Your task to perform on an android device: find photos in the google photos app Image 0: 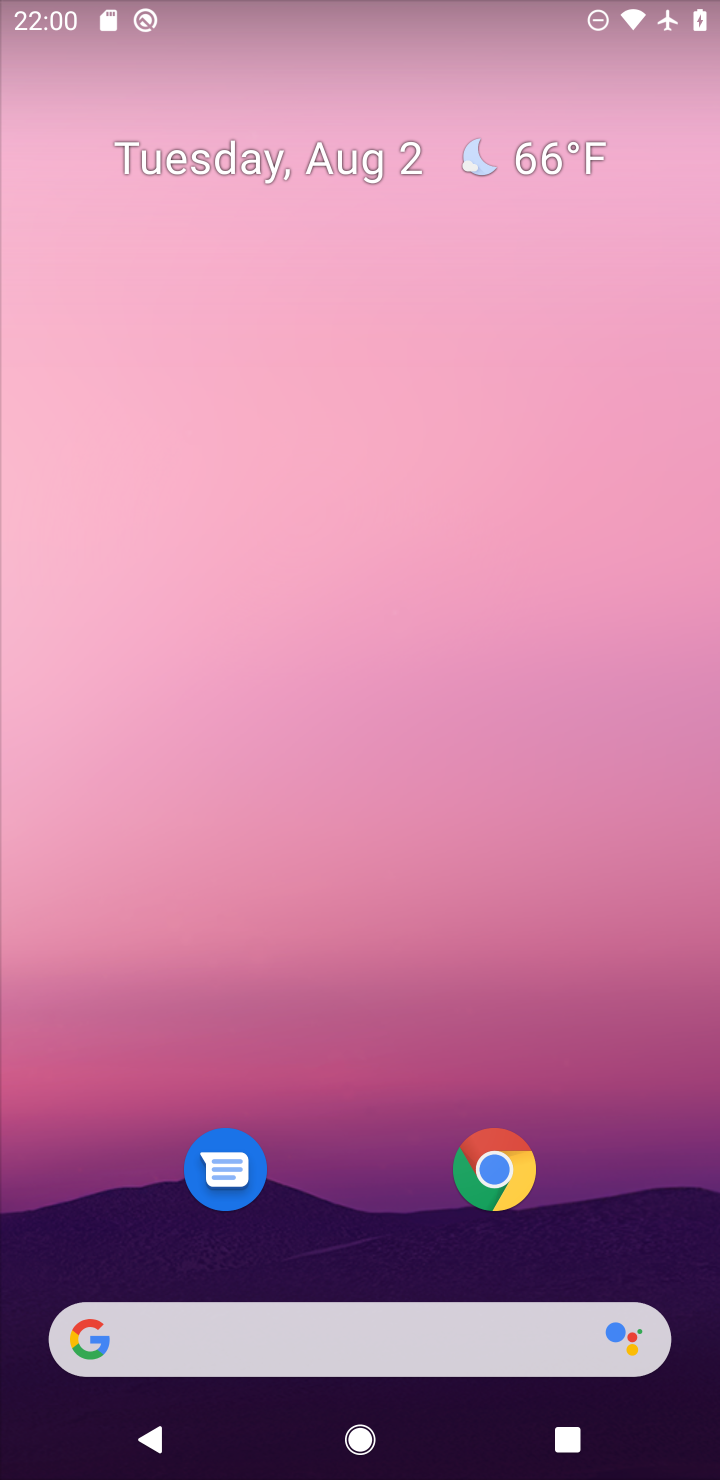
Step 0: drag from (364, 1186) to (382, 17)
Your task to perform on an android device: find photos in the google photos app Image 1: 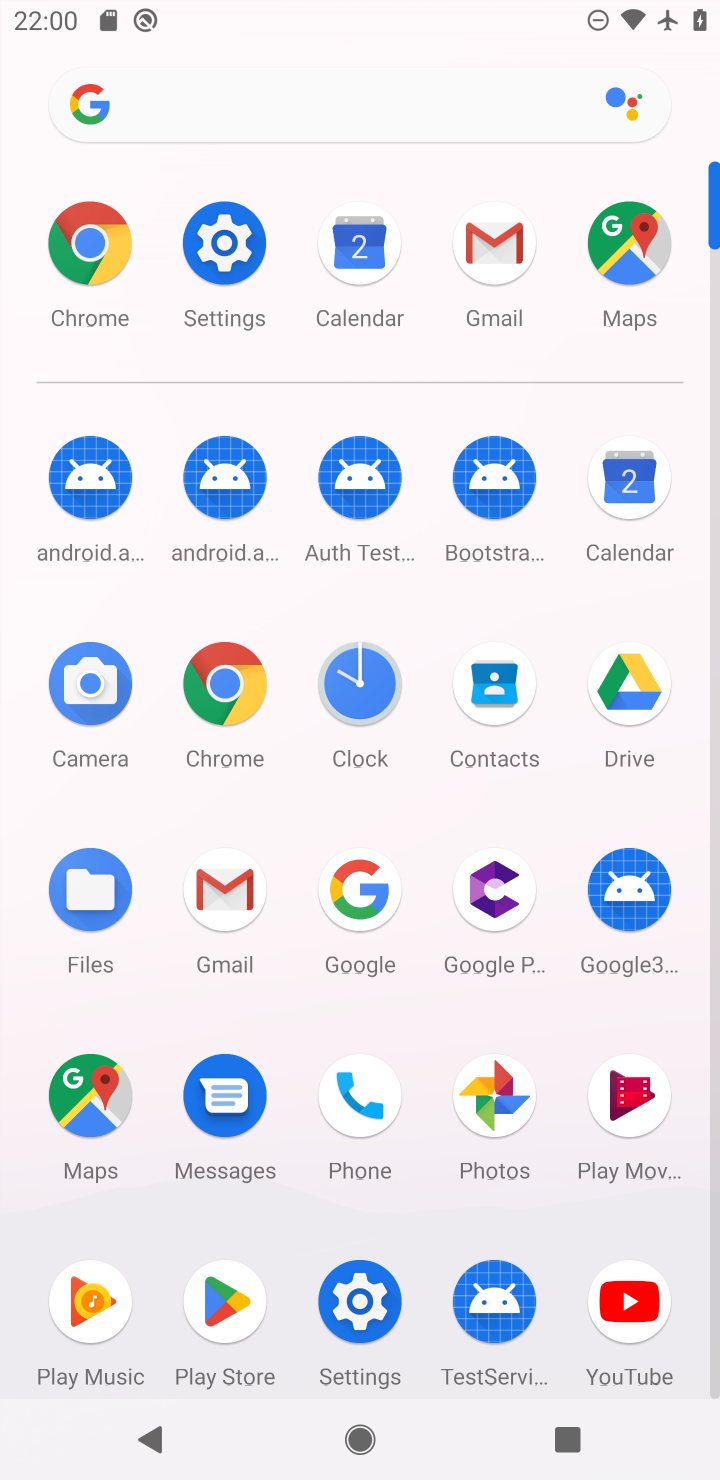
Step 1: click (506, 1106)
Your task to perform on an android device: find photos in the google photos app Image 2: 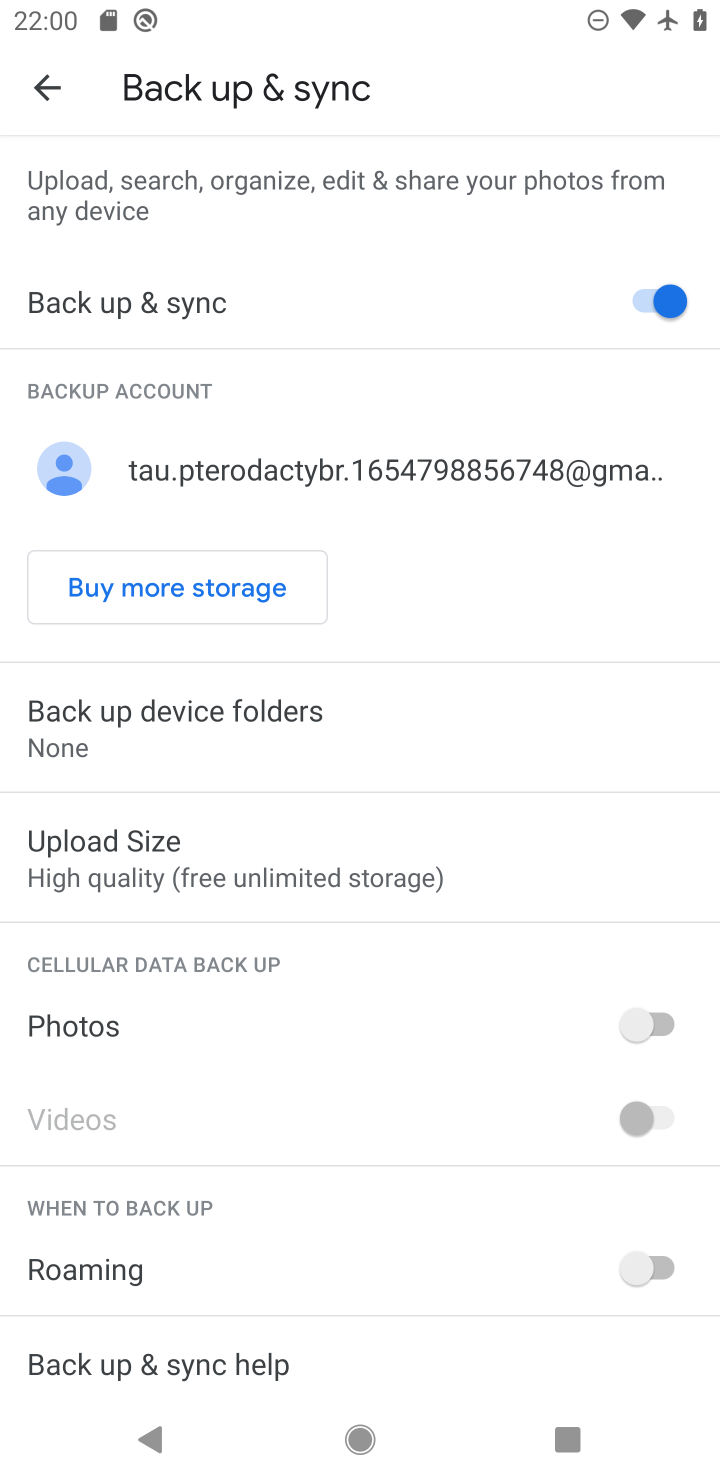
Step 2: drag from (237, 1231) to (251, 562)
Your task to perform on an android device: find photos in the google photos app Image 3: 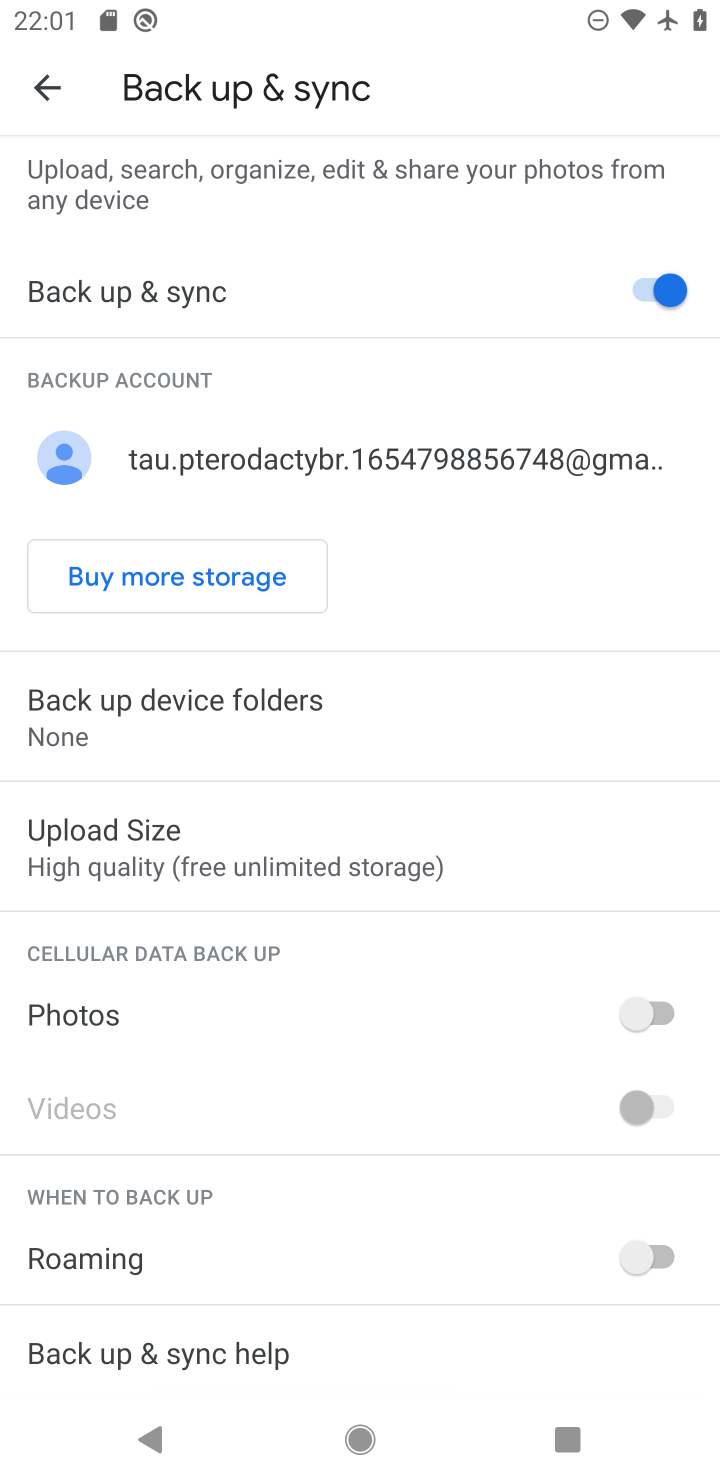
Step 3: click (49, 93)
Your task to perform on an android device: find photos in the google photos app Image 4: 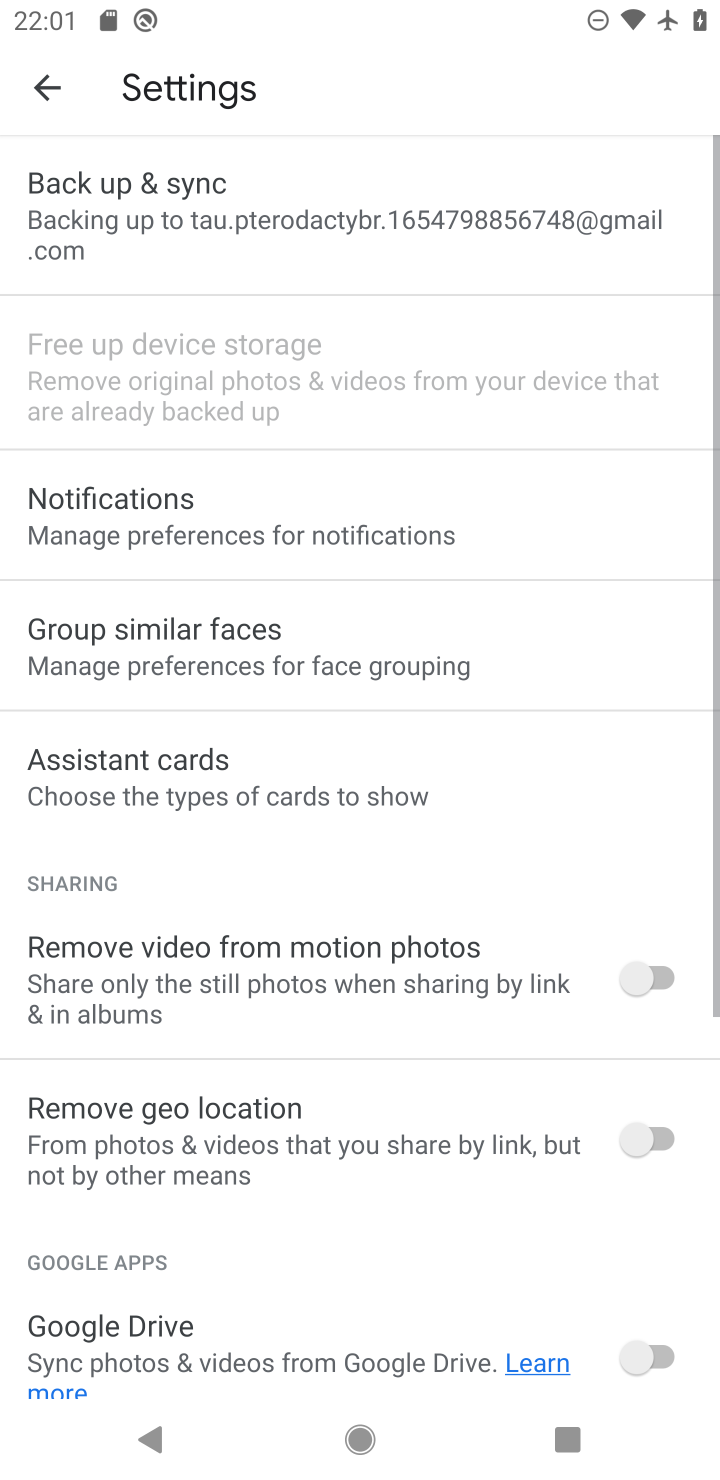
Step 4: click (49, 93)
Your task to perform on an android device: find photos in the google photos app Image 5: 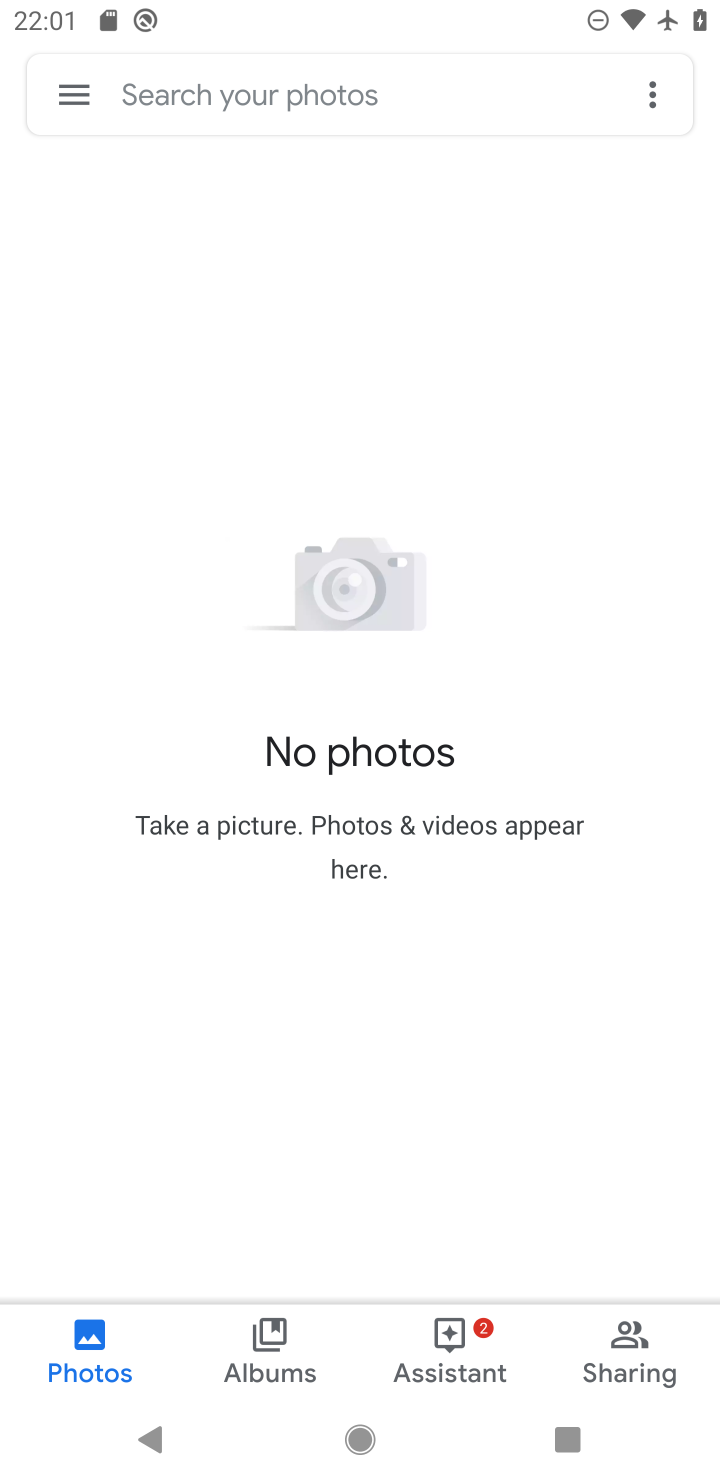
Step 5: task complete